Your task to perform on an android device: What's the weather today? Image 0: 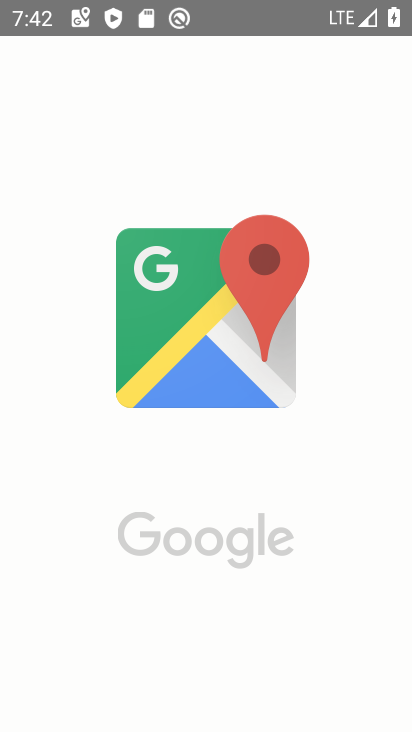
Step 0: drag from (327, 513) to (215, 88)
Your task to perform on an android device: What's the weather today? Image 1: 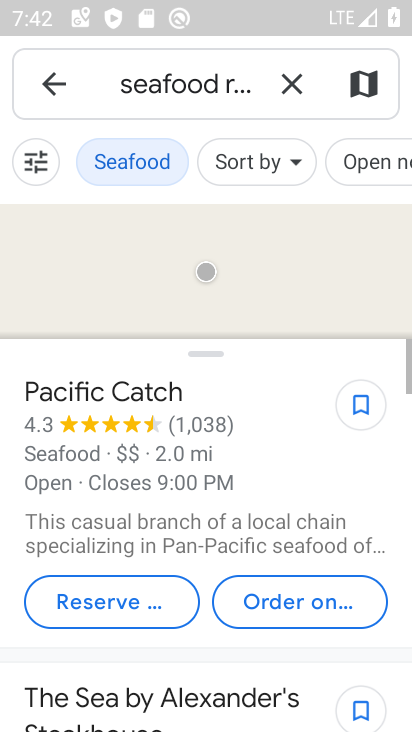
Step 1: press home button
Your task to perform on an android device: What's the weather today? Image 2: 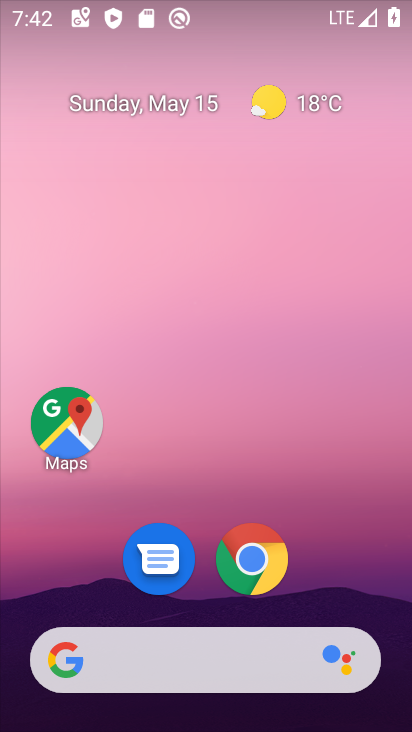
Step 2: click (188, 640)
Your task to perform on an android device: What's the weather today? Image 3: 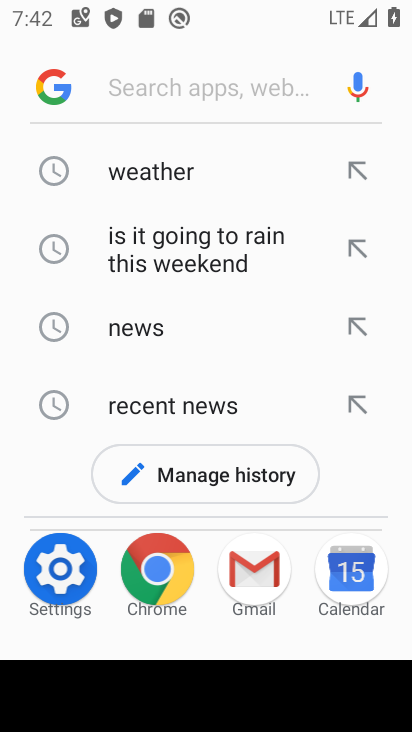
Step 3: click (161, 164)
Your task to perform on an android device: What's the weather today? Image 4: 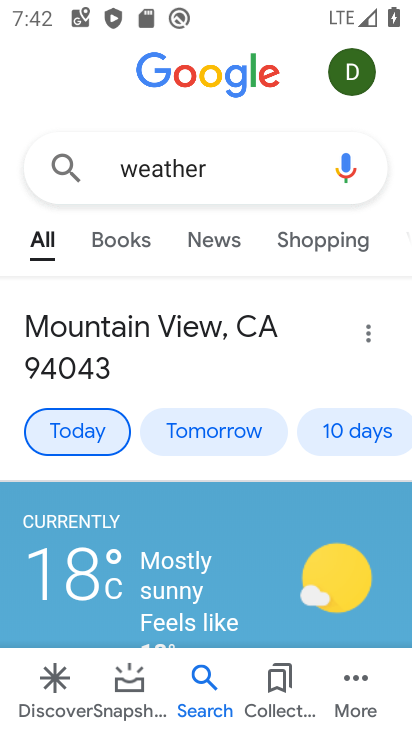
Step 4: task complete